Your task to perform on an android device: Open calendar and show me the second week of next month Image 0: 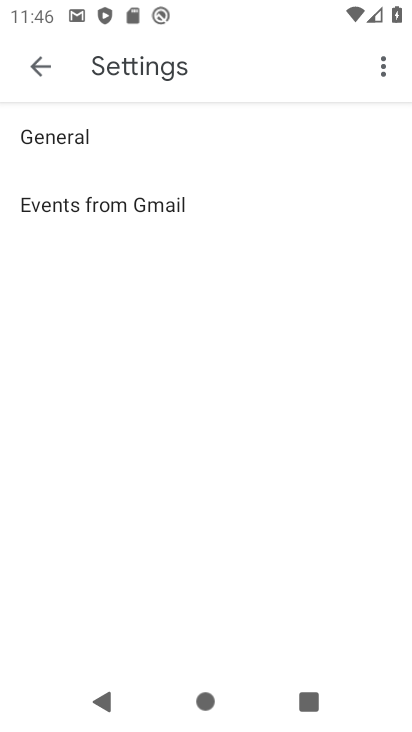
Step 0: press home button
Your task to perform on an android device: Open calendar and show me the second week of next month Image 1: 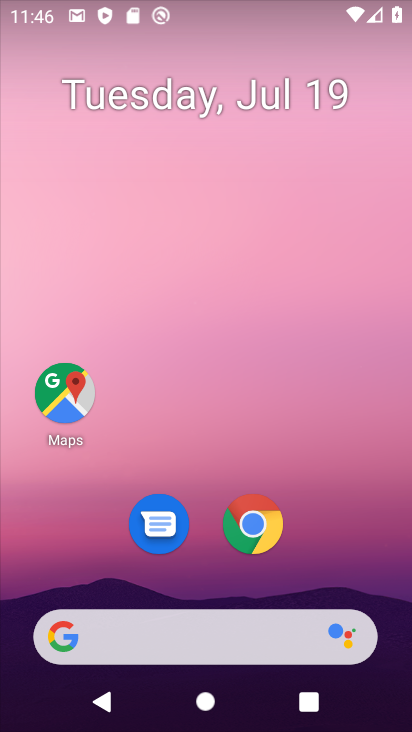
Step 1: drag from (203, 631) to (298, 248)
Your task to perform on an android device: Open calendar and show me the second week of next month Image 2: 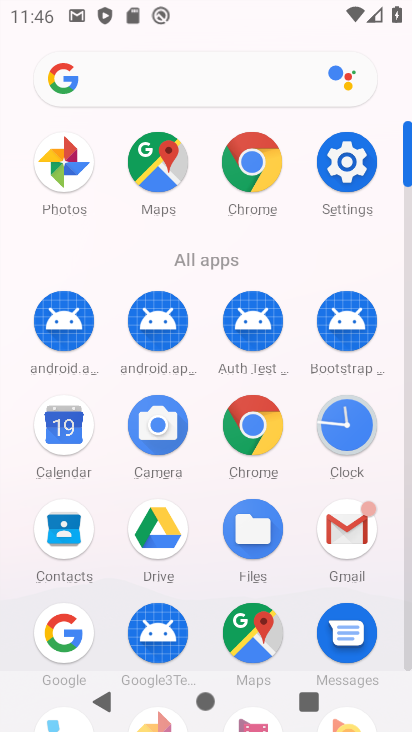
Step 2: click (63, 433)
Your task to perform on an android device: Open calendar and show me the second week of next month Image 3: 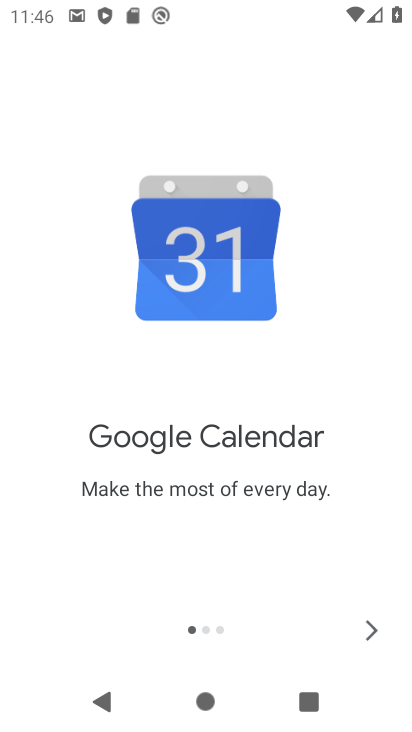
Step 3: click (374, 621)
Your task to perform on an android device: Open calendar and show me the second week of next month Image 4: 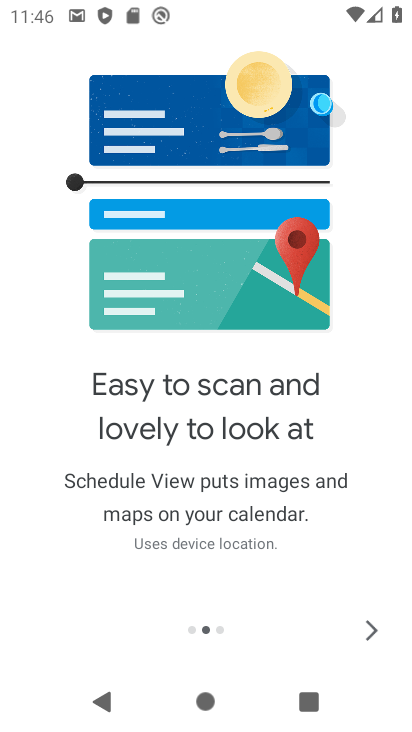
Step 4: click (374, 620)
Your task to perform on an android device: Open calendar and show me the second week of next month Image 5: 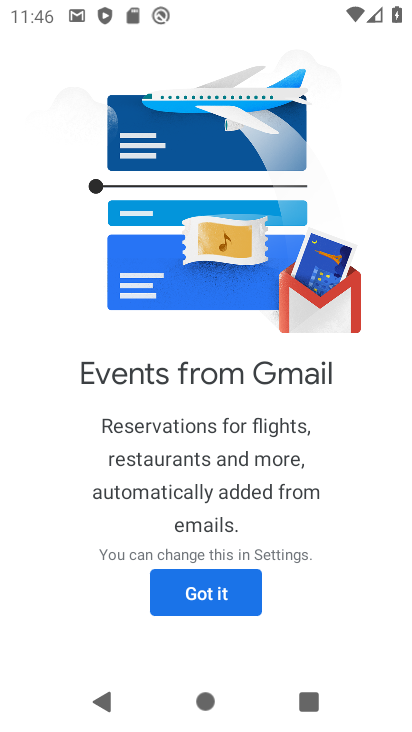
Step 5: click (208, 590)
Your task to perform on an android device: Open calendar and show me the second week of next month Image 6: 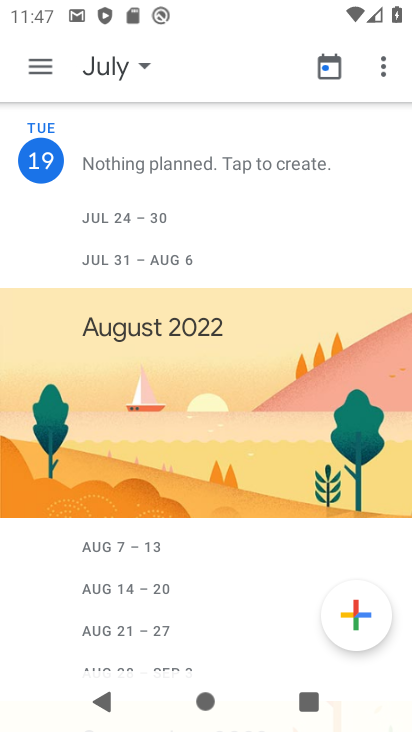
Step 6: click (120, 71)
Your task to perform on an android device: Open calendar and show me the second week of next month Image 7: 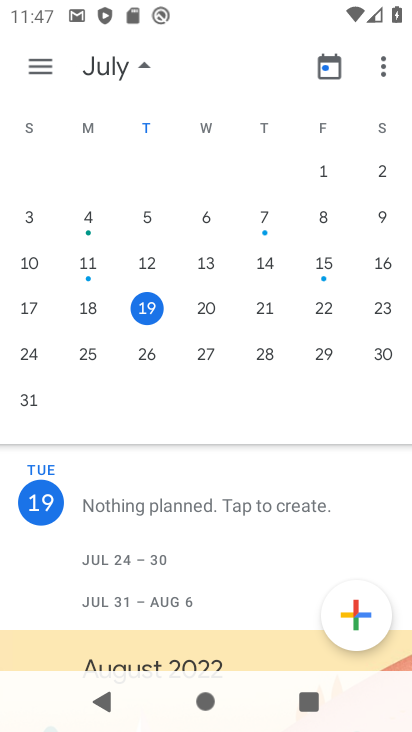
Step 7: drag from (351, 295) to (45, 244)
Your task to perform on an android device: Open calendar and show me the second week of next month Image 8: 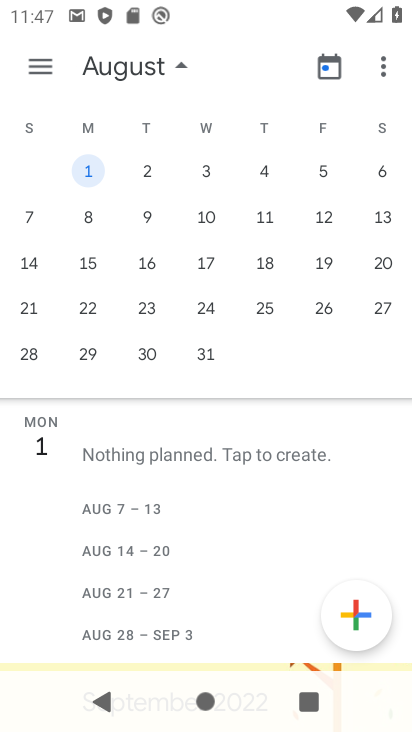
Step 8: click (30, 211)
Your task to perform on an android device: Open calendar and show me the second week of next month Image 9: 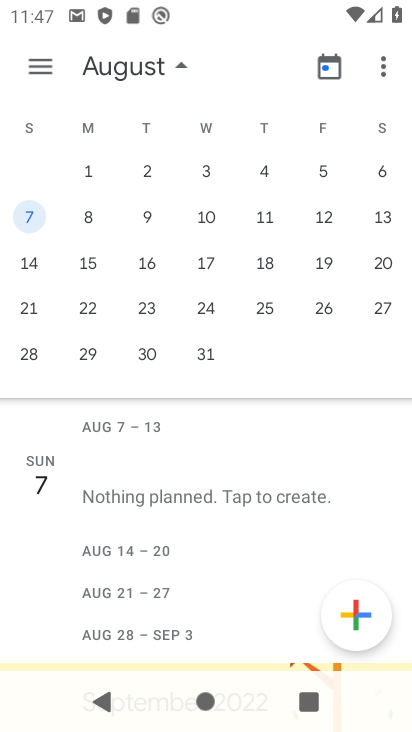
Step 9: click (28, 218)
Your task to perform on an android device: Open calendar and show me the second week of next month Image 10: 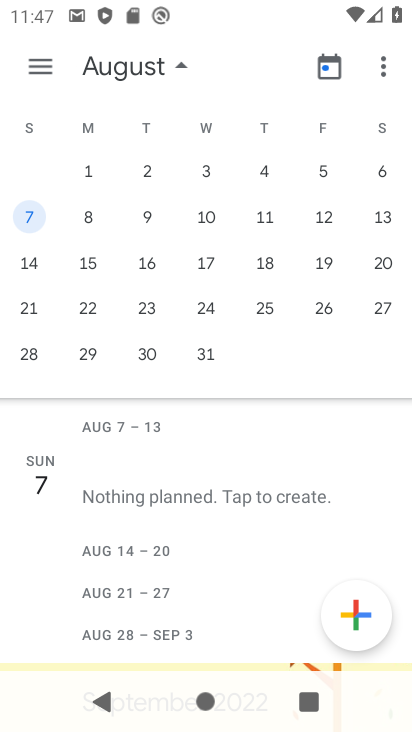
Step 10: click (33, 69)
Your task to perform on an android device: Open calendar and show me the second week of next month Image 11: 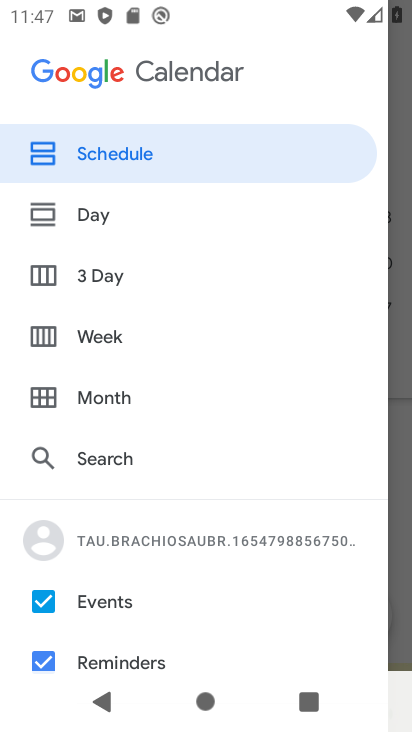
Step 11: click (98, 336)
Your task to perform on an android device: Open calendar and show me the second week of next month Image 12: 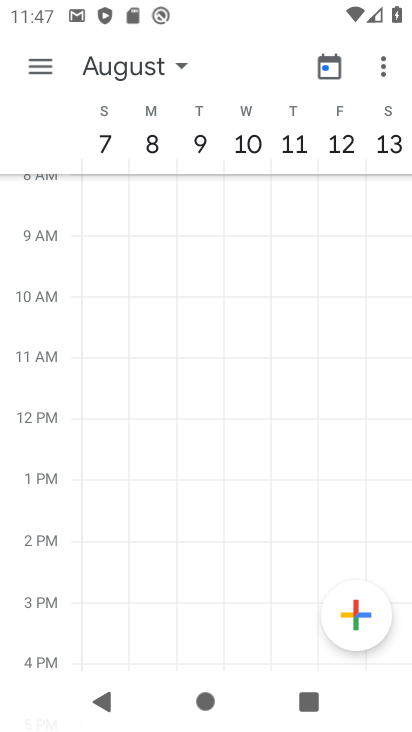
Step 12: task complete